Your task to perform on an android device: delete a single message in the gmail app Image 0: 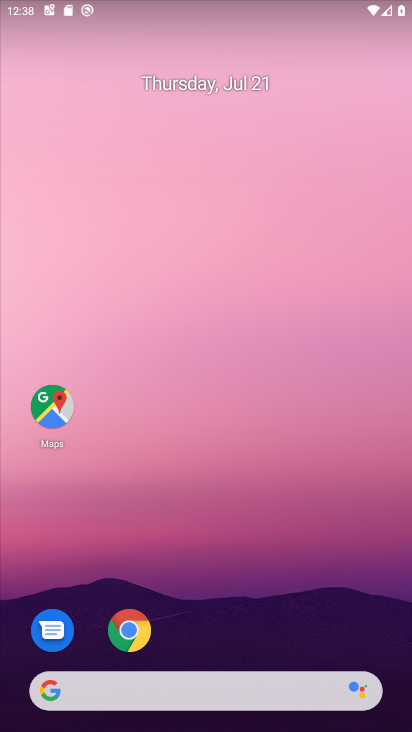
Step 0: drag from (191, 648) to (213, 214)
Your task to perform on an android device: delete a single message in the gmail app Image 1: 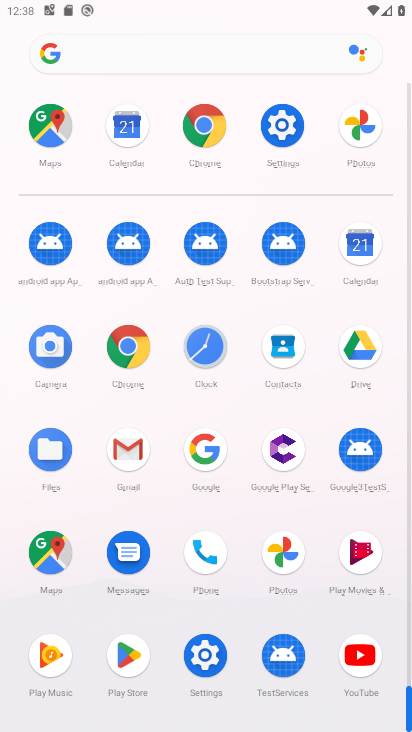
Step 1: click (131, 456)
Your task to perform on an android device: delete a single message in the gmail app Image 2: 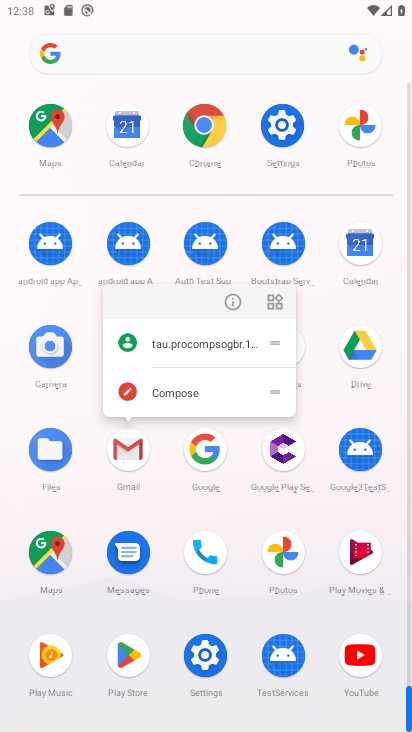
Step 2: click (232, 306)
Your task to perform on an android device: delete a single message in the gmail app Image 3: 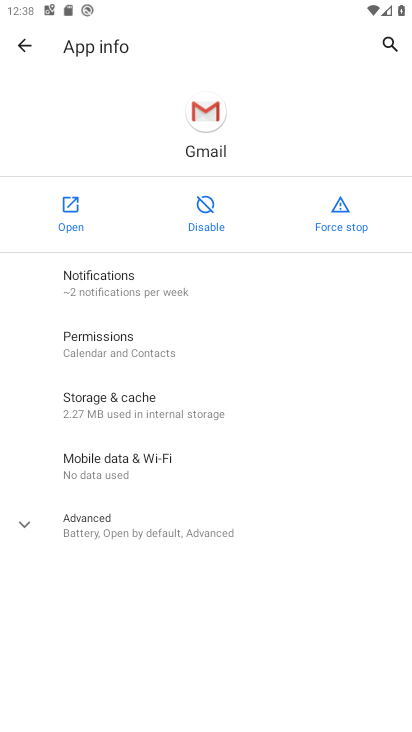
Step 3: click (68, 212)
Your task to perform on an android device: delete a single message in the gmail app Image 4: 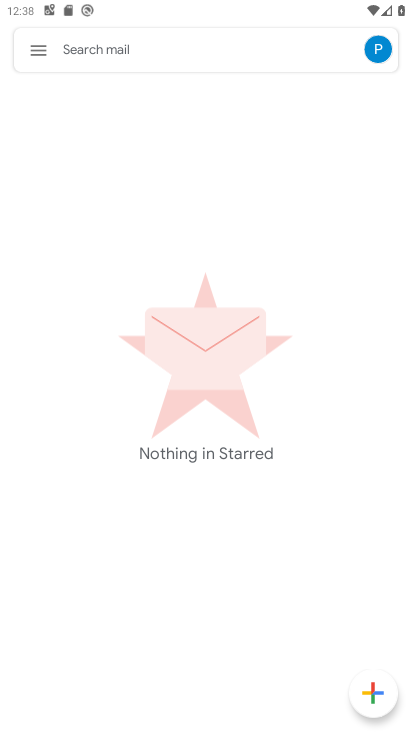
Step 4: task complete